Your task to perform on an android device: empty trash in the gmail app Image 0: 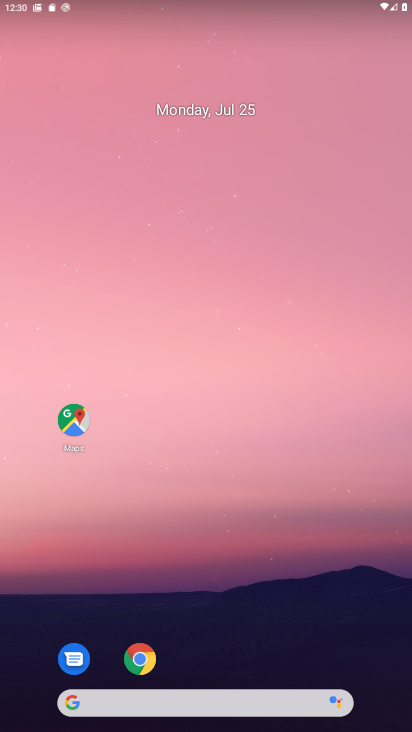
Step 0: drag from (260, 650) to (210, 223)
Your task to perform on an android device: empty trash in the gmail app Image 1: 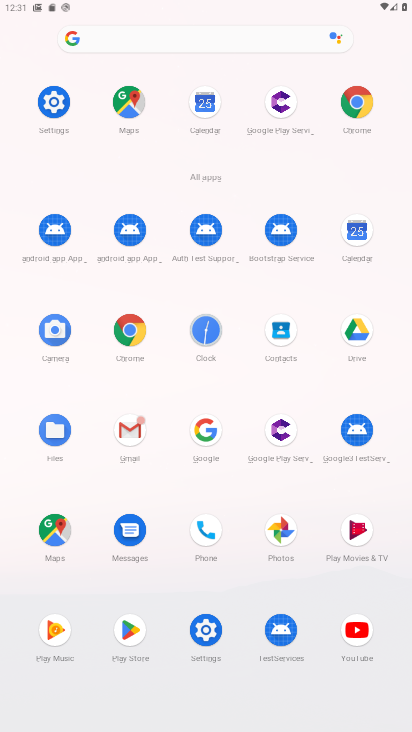
Step 1: click (129, 428)
Your task to perform on an android device: empty trash in the gmail app Image 2: 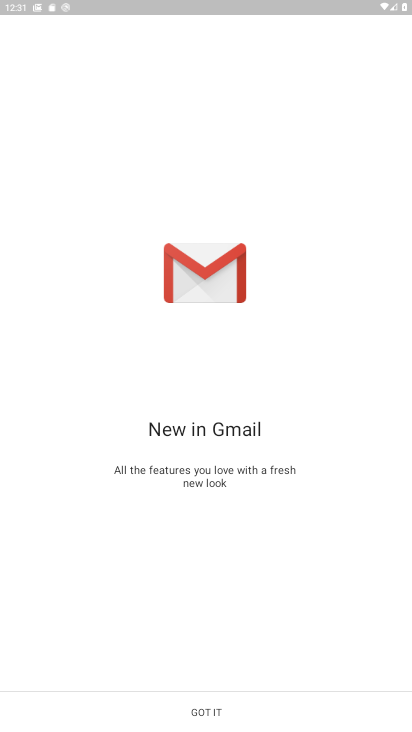
Step 2: click (211, 720)
Your task to perform on an android device: empty trash in the gmail app Image 3: 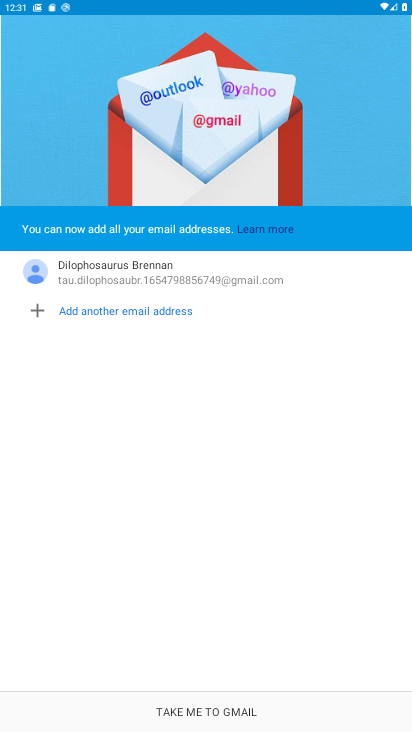
Step 3: click (211, 720)
Your task to perform on an android device: empty trash in the gmail app Image 4: 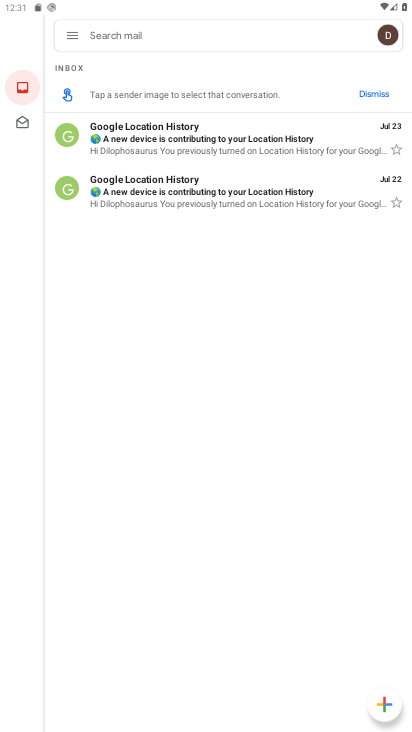
Step 4: click (68, 45)
Your task to perform on an android device: empty trash in the gmail app Image 5: 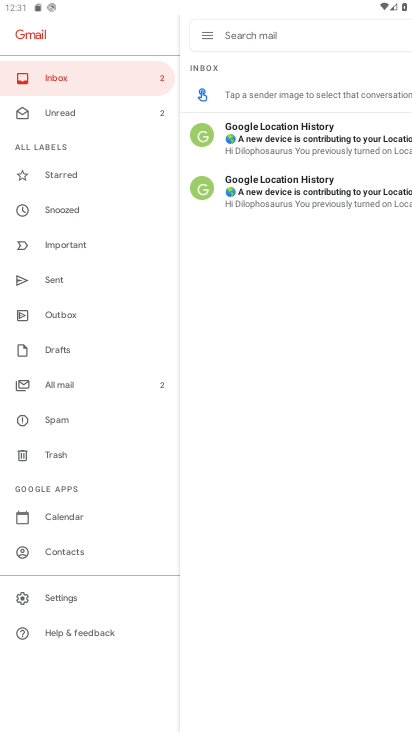
Step 5: click (73, 460)
Your task to perform on an android device: empty trash in the gmail app Image 6: 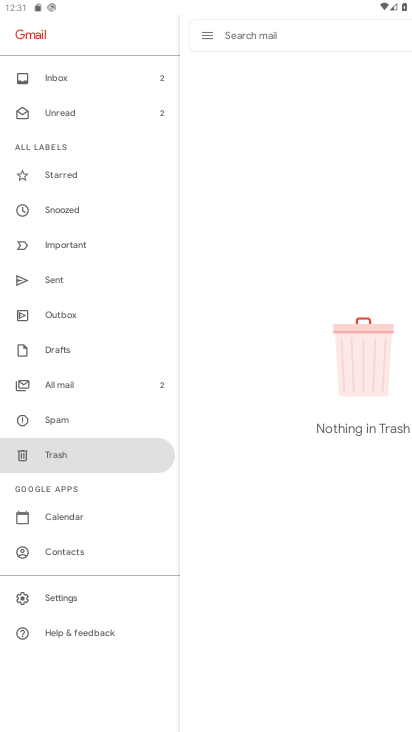
Step 6: task complete